Your task to perform on an android device: Open calendar and show me the third week of next month Image 0: 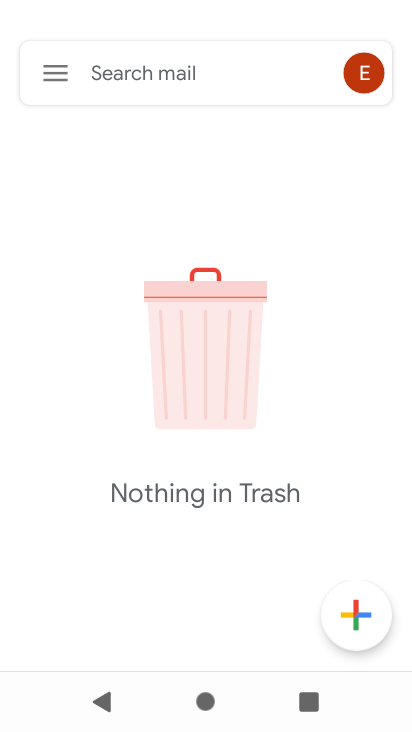
Step 0: press home button
Your task to perform on an android device: Open calendar and show me the third week of next month Image 1: 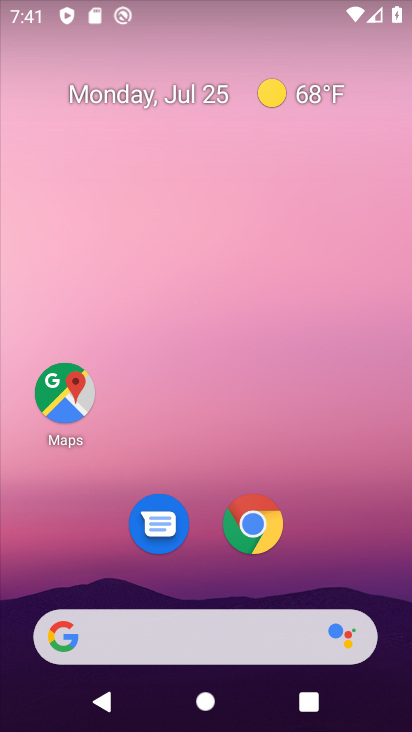
Step 1: drag from (317, 541) to (361, 74)
Your task to perform on an android device: Open calendar and show me the third week of next month Image 2: 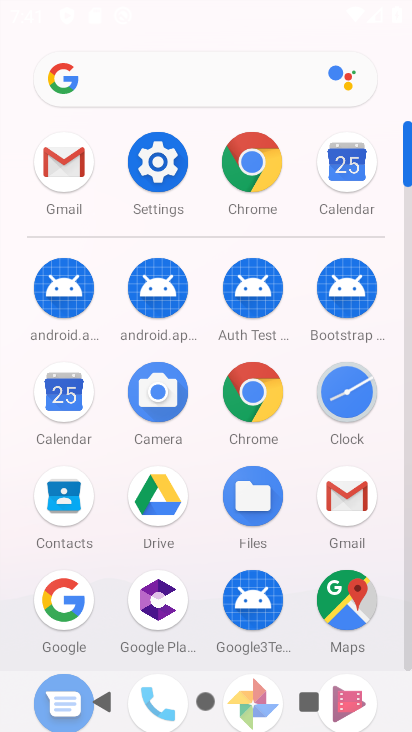
Step 2: click (347, 172)
Your task to perform on an android device: Open calendar and show me the third week of next month Image 3: 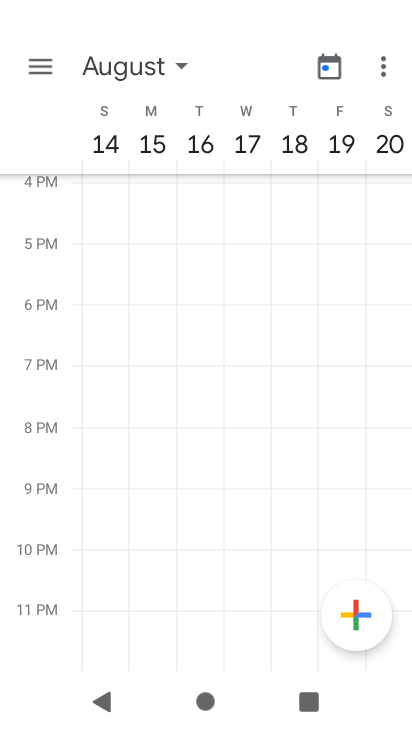
Step 3: task complete